Your task to perform on an android device: check the backup settings in the google photos Image 0: 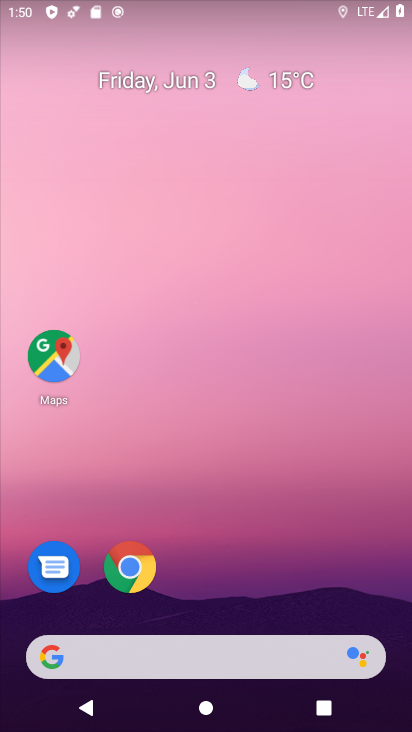
Step 0: drag from (215, 639) to (243, 81)
Your task to perform on an android device: check the backup settings in the google photos Image 1: 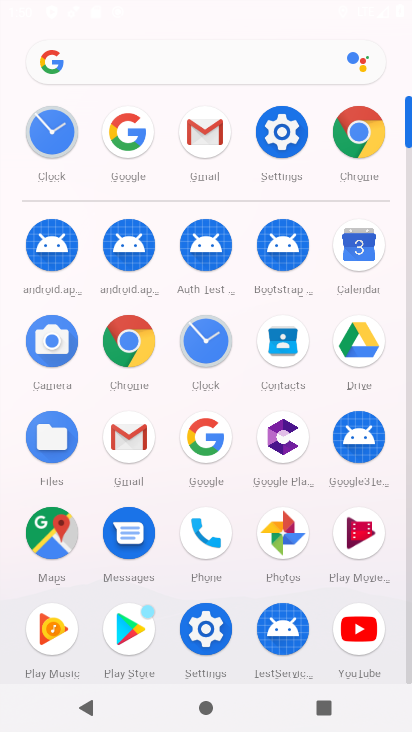
Step 1: click (299, 530)
Your task to perform on an android device: check the backup settings in the google photos Image 2: 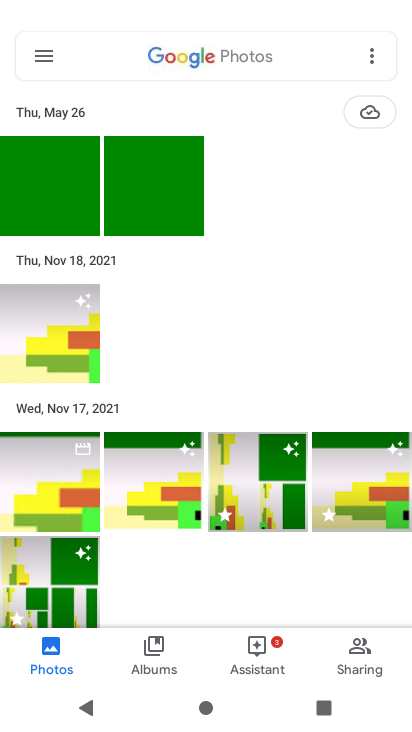
Step 2: click (40, 59)
Your task to perform on an android device: check the backup settings in the google photos Image 3: 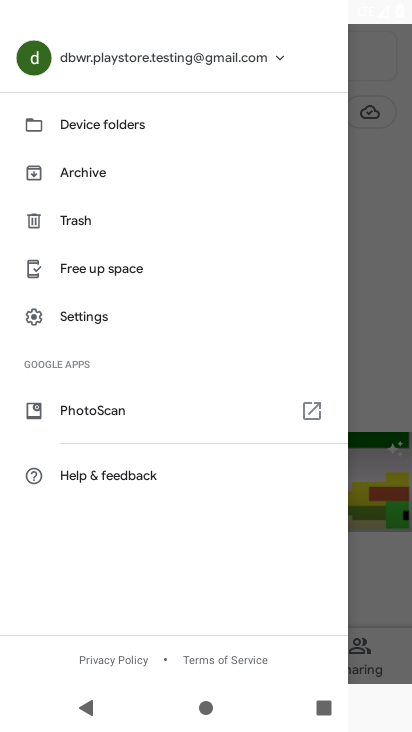
Step 3: click (85, 313)
Your task to perform on an android device: check the backup settings in the google photos Image 4: 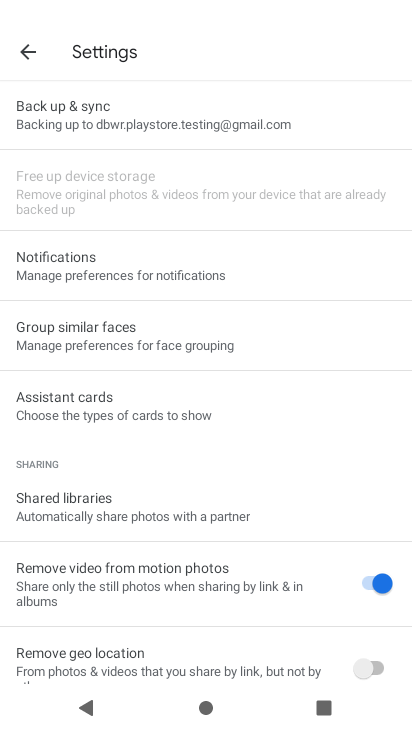
Step 4: click (121, 123)
Your task to perform on an android device: check the backup settings in the google photos Image 5: 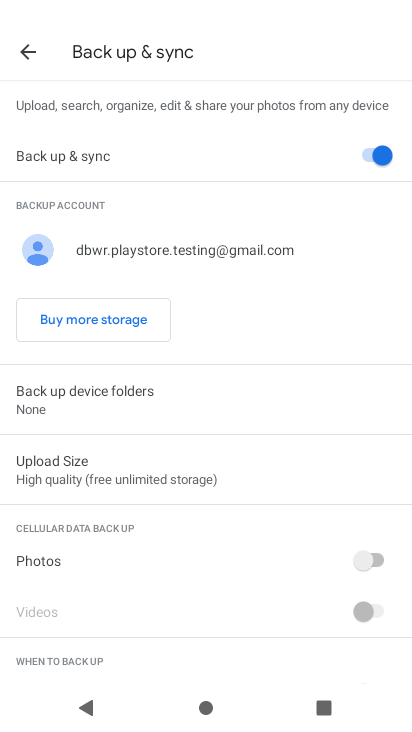
Step 5: task complete